Your task to perform on an android device: add a contact in the contacts app Image 0: 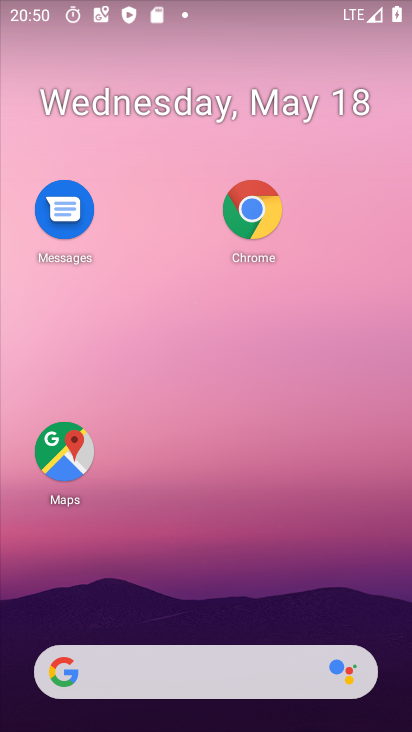
Step 0: drag from (206, 614) to (180, 4)
Your task to perform on an android device: add a contact in the contacts app Image 1: 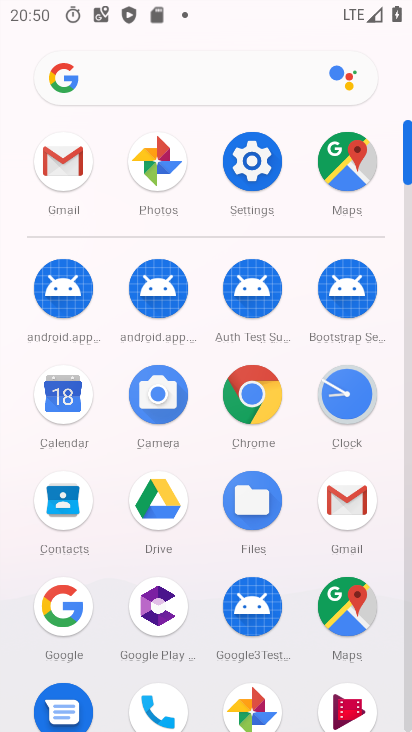
Step 1: click (59, 479)
Your task to perform on an android device: add a contact in the contacts app Image 2: 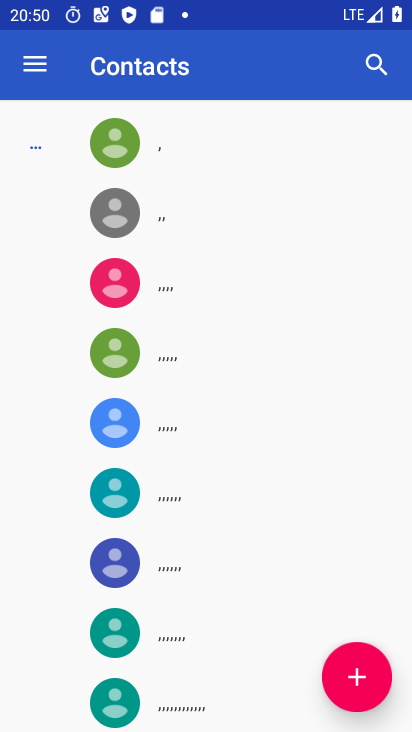
Step 2: click (361, 680)
Your task to perform on an android device: add a contact in the contacts app Image 3: 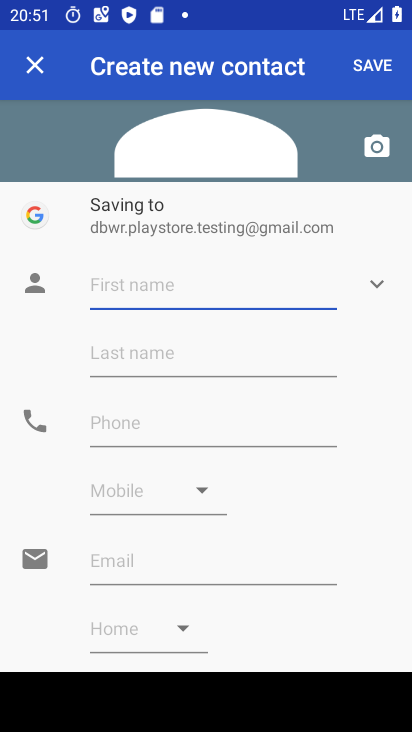
Step 3: type "luke"
Your task to perform on an android device: add a contact in the contacts app Image 4: 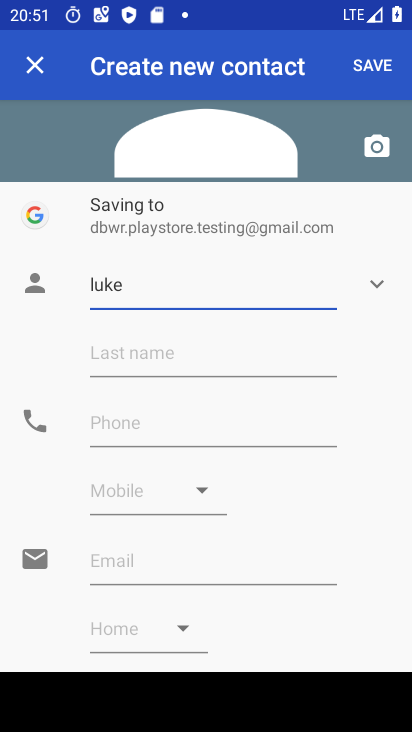
Step 4: click (153, 414)
Your task to perform on an android device: add a contact in the contacts app Image 5: 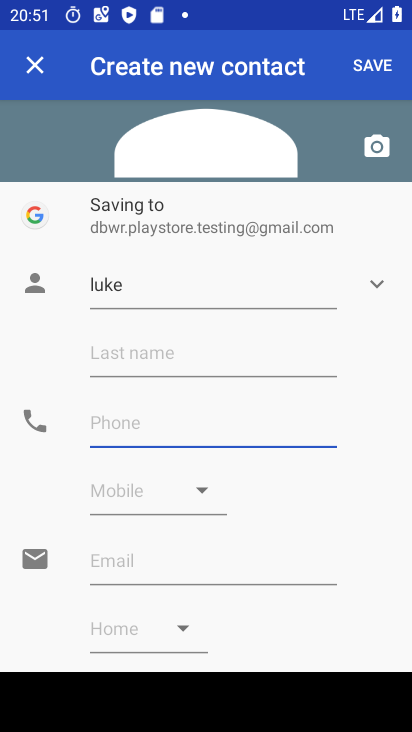
Step 5: type "876545678"
Your task to perform on an android device: add a contact in the contacts app Image 6: 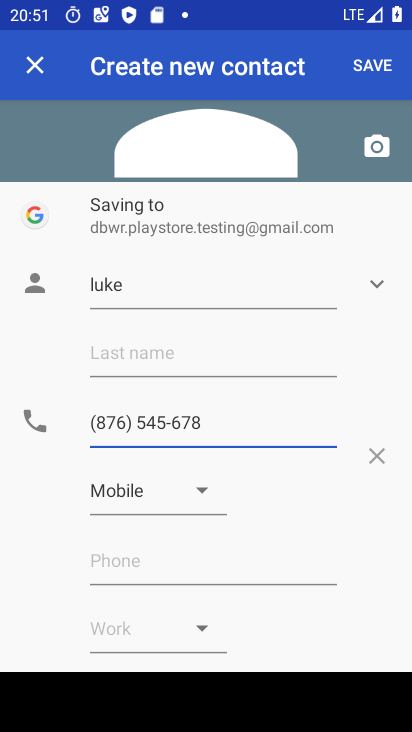
Step 6: click (357, 75)
Your task to perform on an android device: add a contact in the contacts app Image 7: 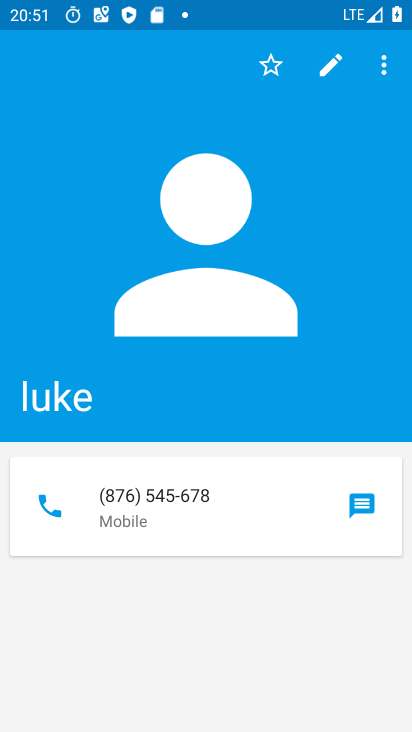
Step 7: task complete